Your task to perform on an android device: What's on my calendar tomorrow? Image 0: 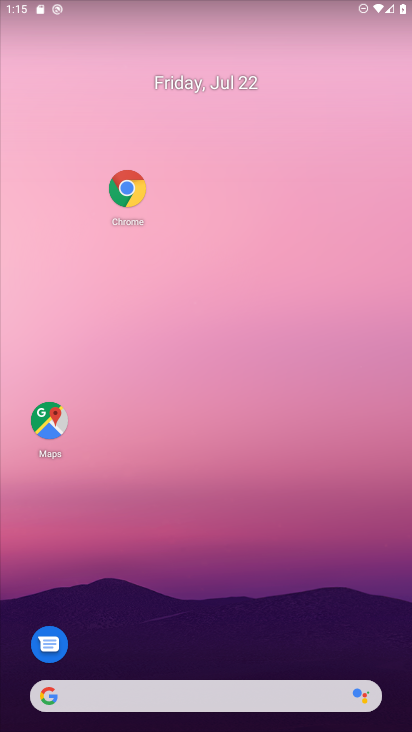
Step 0: click (220, 70)
Your task to perform on an android device: What's on my calendar tomorrow? Image 1: 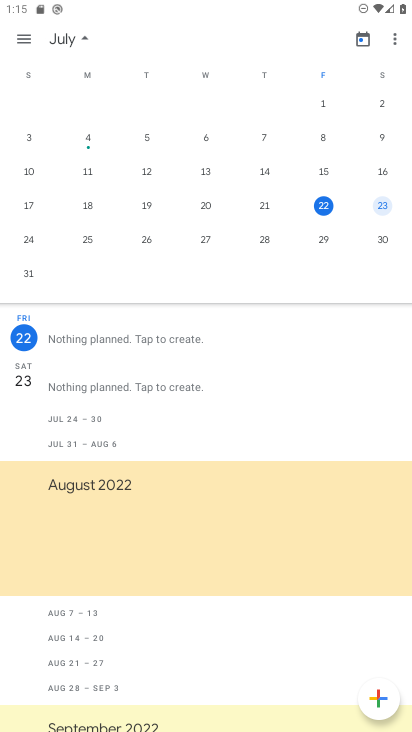
Step 1: click (374, 205)
Your task to perform on an android device: What's on my calendar tomorrow? Image 2: 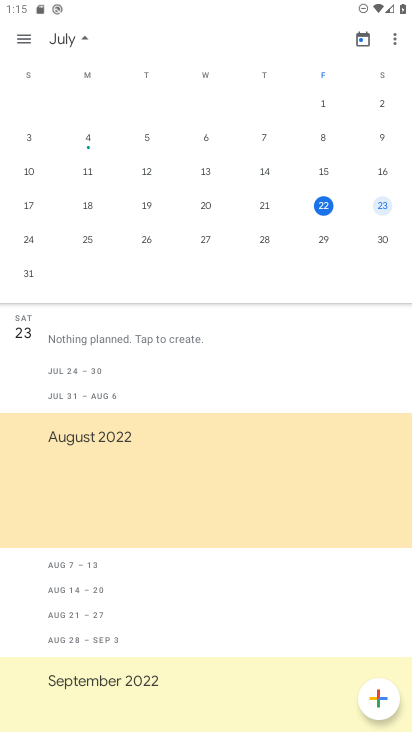
Step 2: task complete